Your task to perform on an android device: toggle sleep mode Image 0: 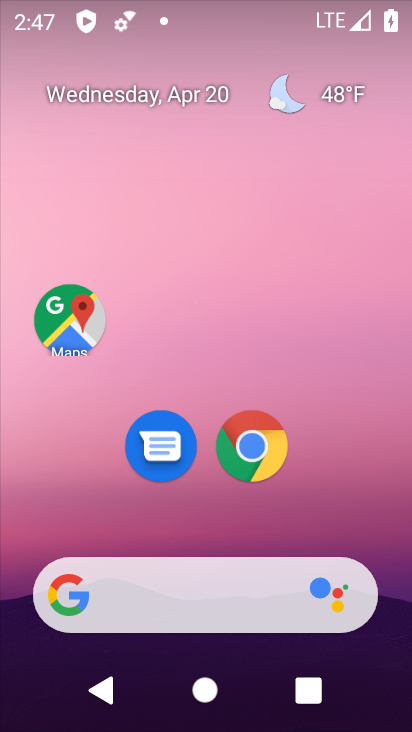
Step 0: drag from (331, 472) to (314, 135)
Your task to perform on an android device: toggle sleep mode Image 1: 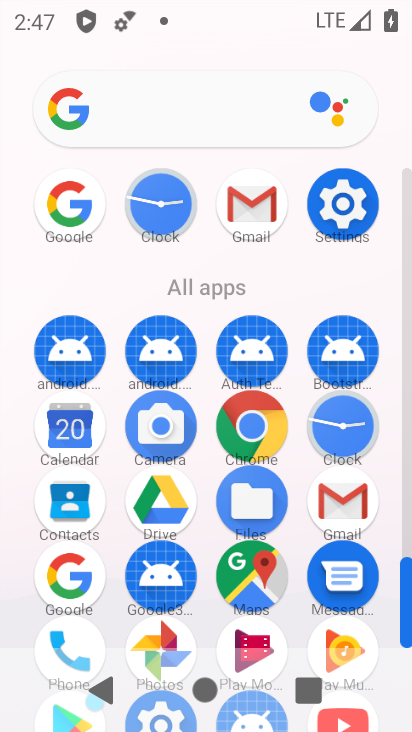
Step 1: click (347, 202)
Your task to perform on an android device: toggle sleep mode Image 2: 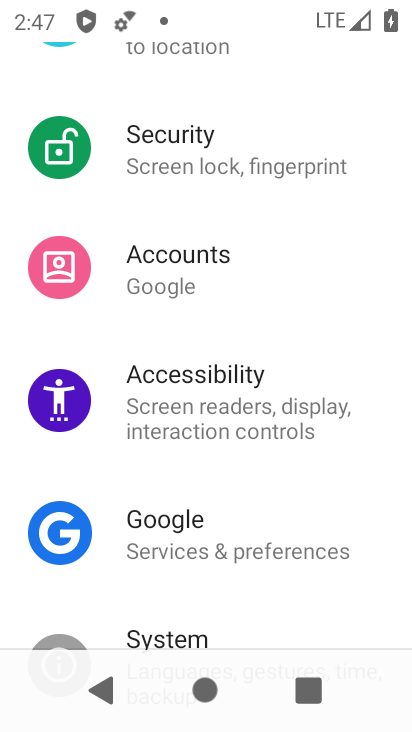
Step 2: drag from (163, 200) to (171, 369)
Your task to perform on an android device: toggle sleep mode Image 3: 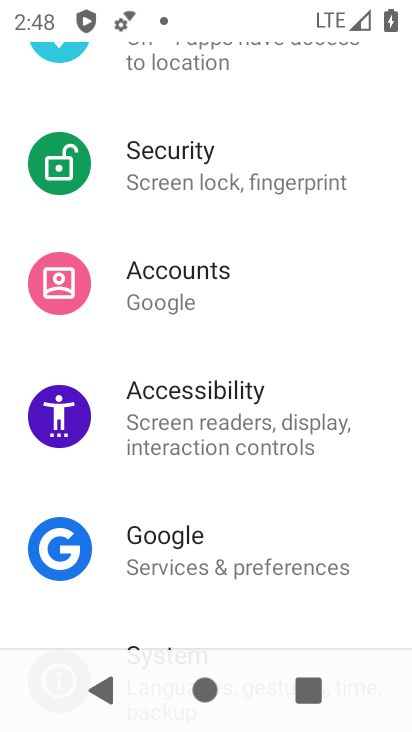
Step 3: drag from (245, 113) to (232, 457)
Your task to perform on an android device: toggle sleep mode Image 4: 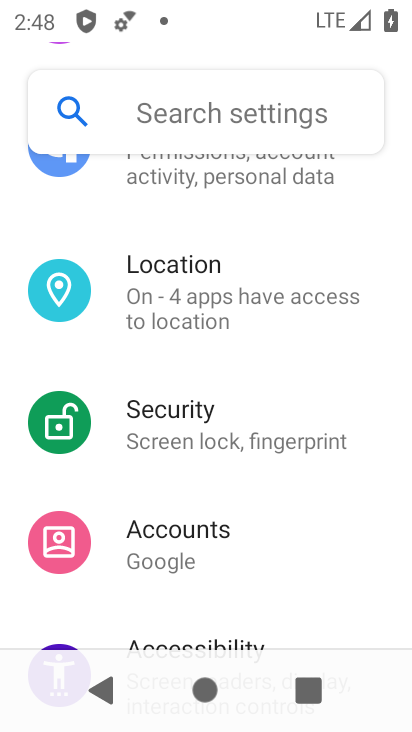
Step 4: drag from (241, 209) to (205, 539)
Your task to perform on an android device: toggle sleep mode Image 5: 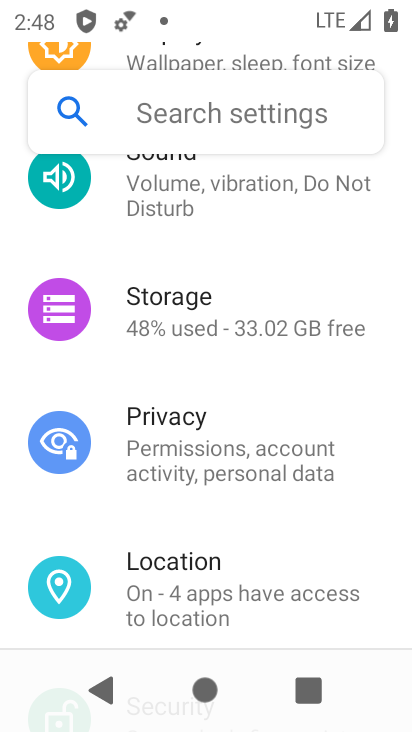
Step 5: drag from (207, 261) to (145, 687)
Your task to perform on an android device: toggle sleep mode Image 6: 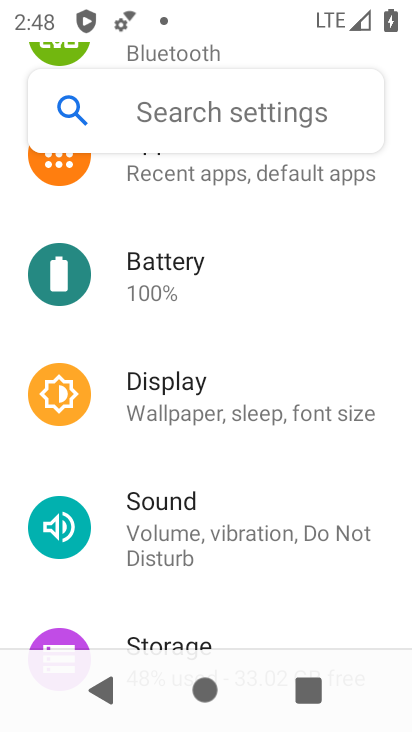
Step 6: click (226, 413)
Your task to perform on an android device: toggle sleep mode Image 7: 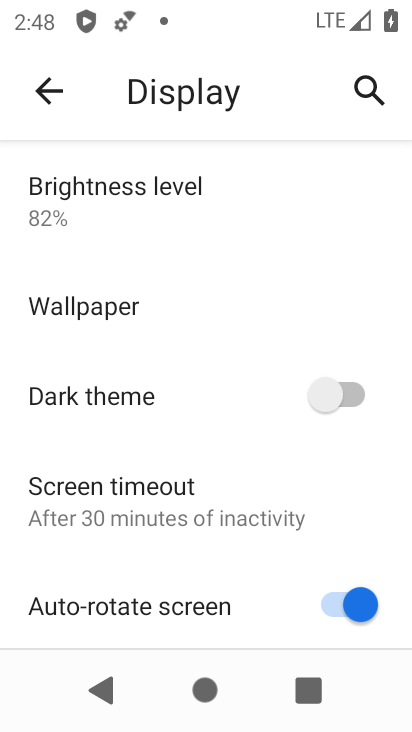
Step 7: drag from (142, 449) to (150, 286)
Your task to perform on an android device: toggle sleep mode Image 8: 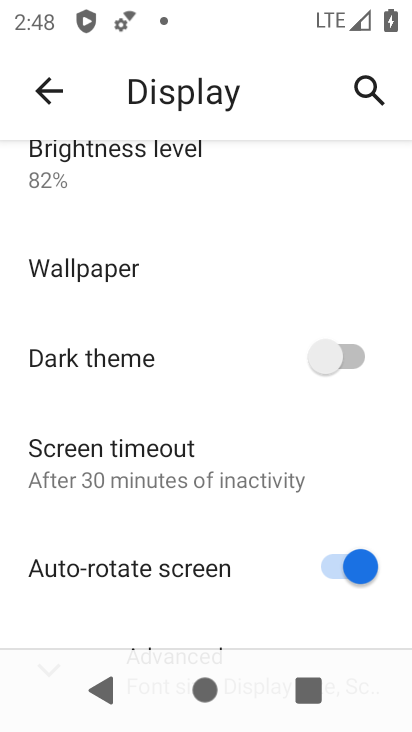
Step 8: drag from (151, 606) to (166, 383)
Your task to perform on an android device: toggle sleep mode Image 9: 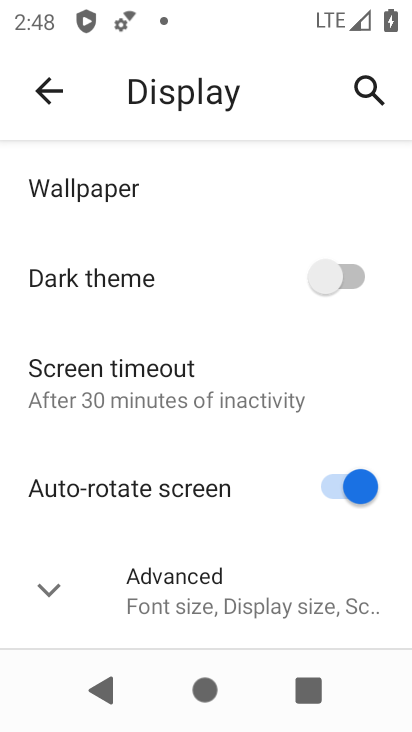
Step 9: drag from (214, 515) to (248, 297)
Your task to perform on an android device: toggle sleep mode Image 10: 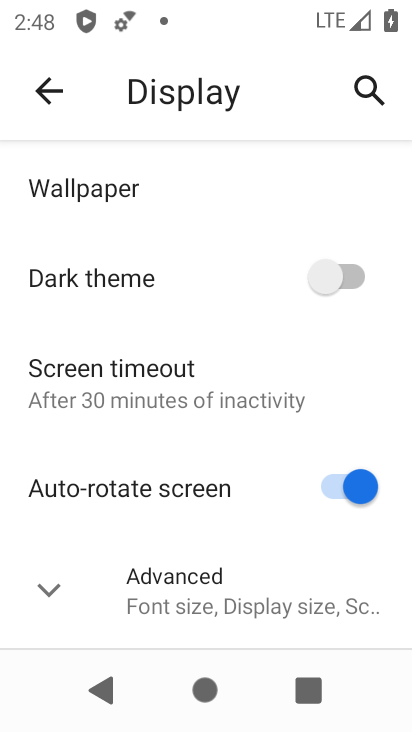
Step 10: click (213, 580)
Your task to perform on an android device: toggle sleep mode Image 11: 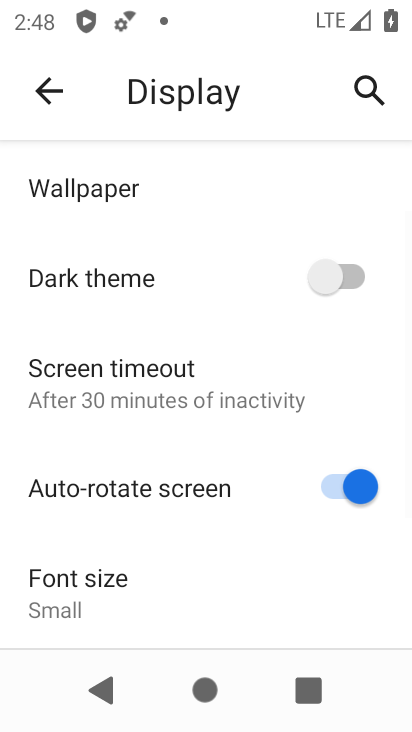
Step 11: task complete